Your task to perform on an android device: What's on my calendar today? Image 0: 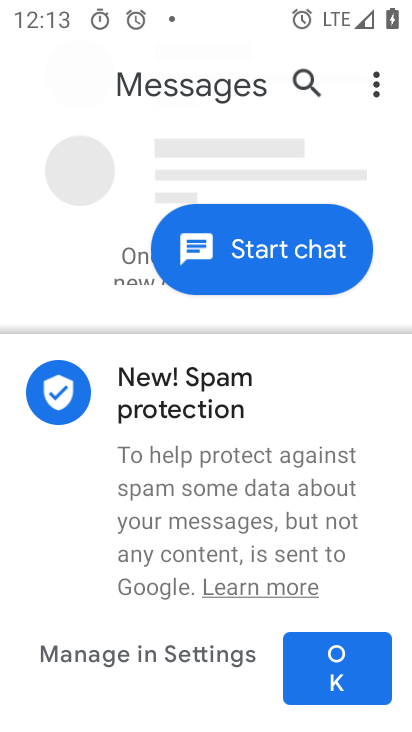
Step 0: press home button
Your task to perform on an android device: What's on my calendar today? Image 1: 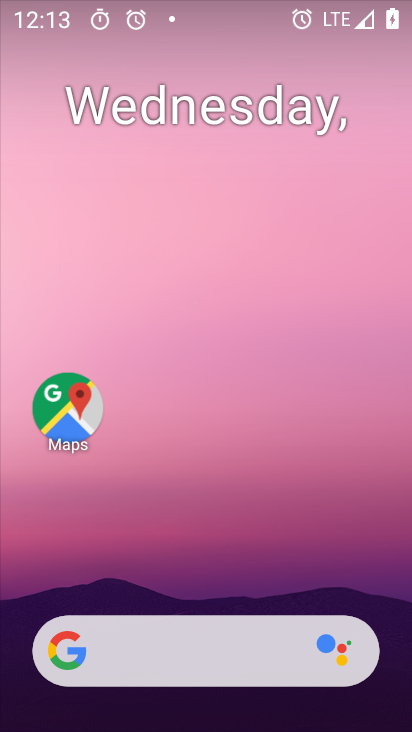
Step 1: drag from (256, 625) to (332, 196)
Your task to perform on an android device: What's on my calendar today? Image 2: 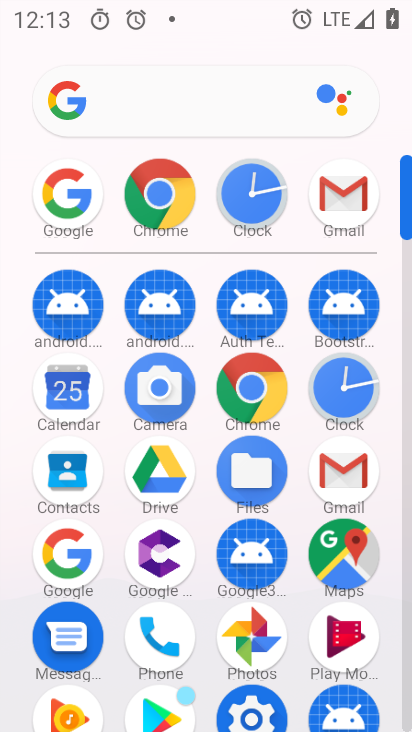
Step 2: click (74, 406)
Your task to perform on an android device: What's on my calendar today? Image 3: 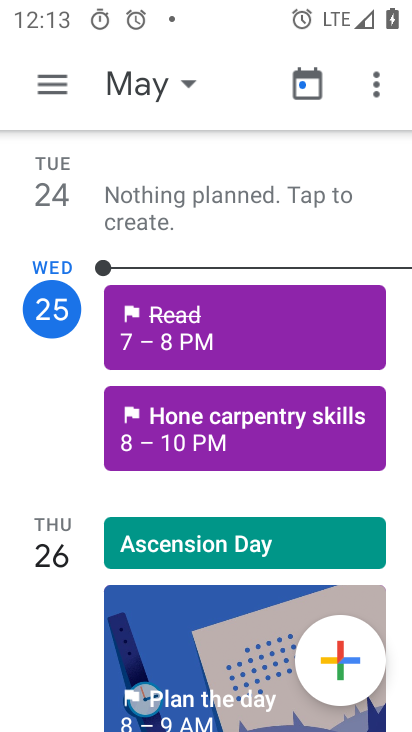
Step 3: task complete